Your task to perform on an android device: change alarm snooze length Image 0: 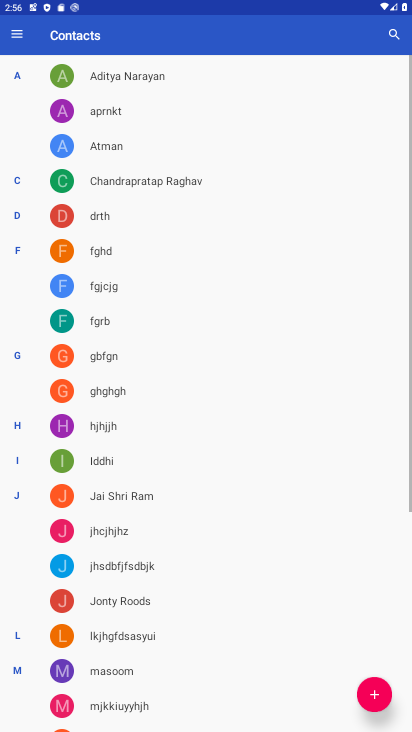
Step 0: drag from (203, 665) to (343, 554)
Your task to perform on an android device: change alarm snooze length Image 1: 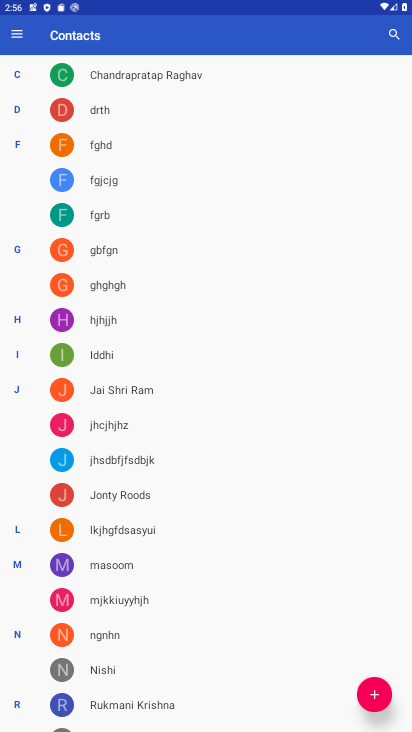
Step 1: press home button
Your task to perform on an android device: change alarm snooze length Image 2: 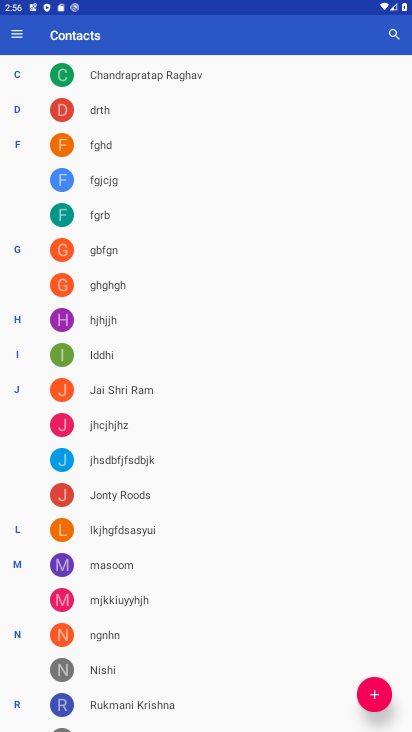
Step 2: drag from (343, 554) to (382, 550)
Your task to perform on an android device: change alarm snooze length Image 3: 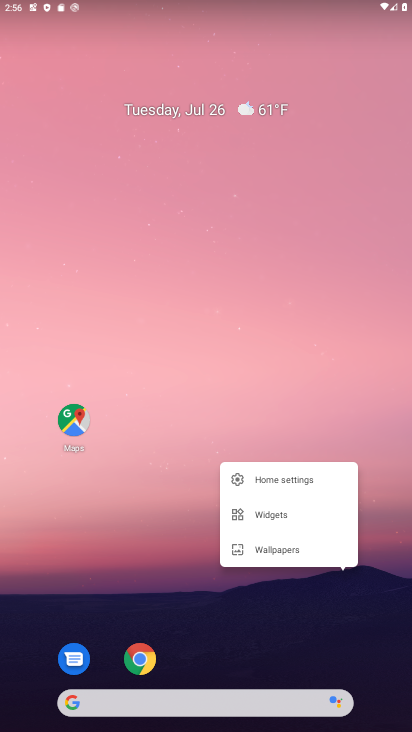
Step 3: drag from (187, 582) to (203, 350)
Your task to perform on an android device: change alarm snooze length Image 4: 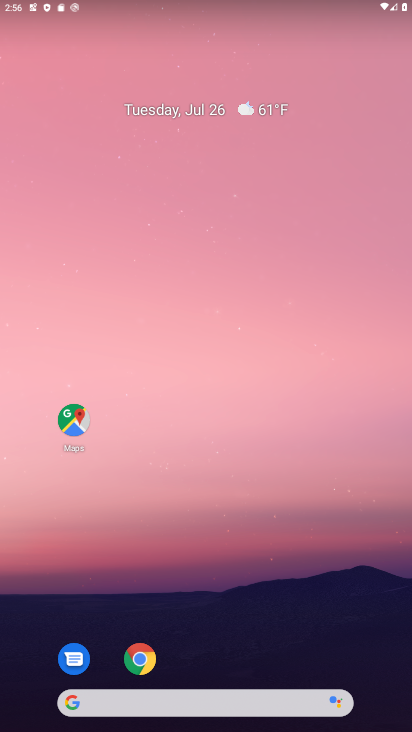
Step 4: drag from (189, 536) to (221, 76)
Your task to perform on an android device: change alarm snooze length Image 5: 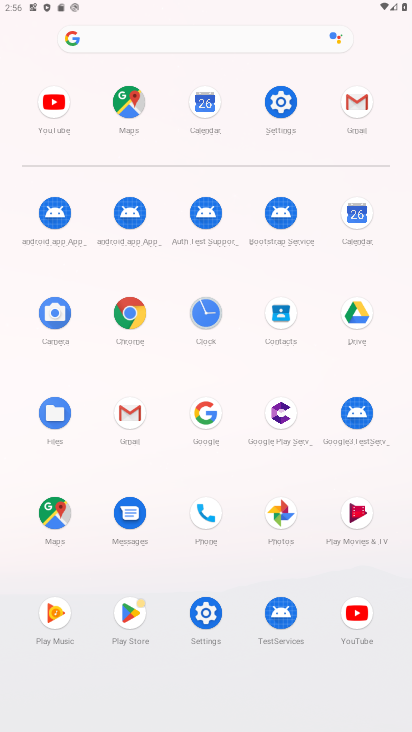
Step 5: click (210, 326)
Your task to perform on an android device: change alarm snooze length Image 6: 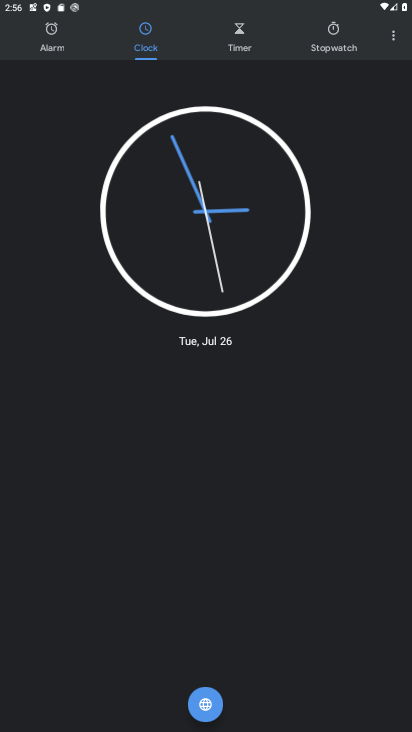
Step 6: click (395, 38)
Your task to perform on an android device: change alarm snooze length Image 7: 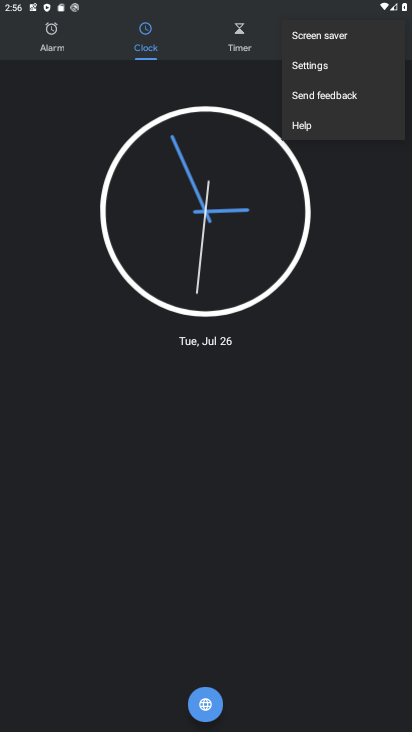
Step 7: click (304, 67)
Your task to perform on an android device: change alarm snooze length Image 8: 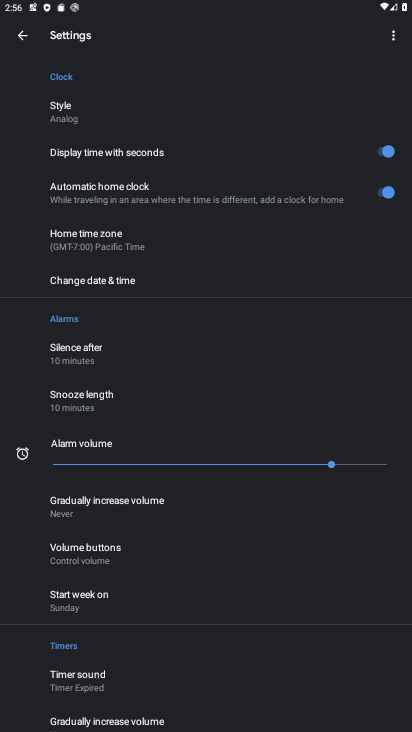
Step 8: click (111, 280)
Your task to perform on an android device: change alarm snooze length Image 9: 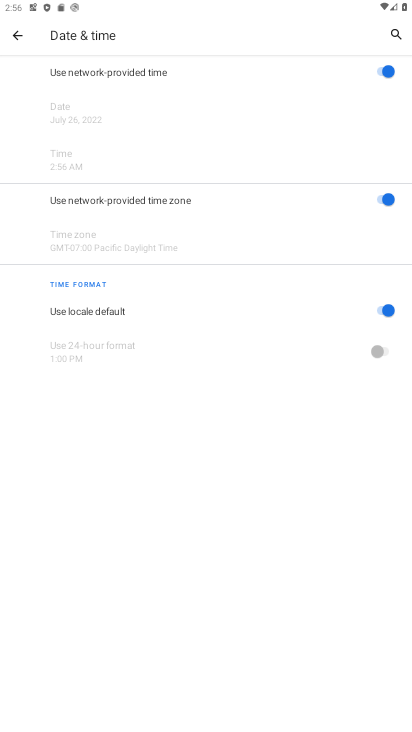
Step 9: click (14, 34)
Your task to perform on an android device: change alarm snooze length Image 10: 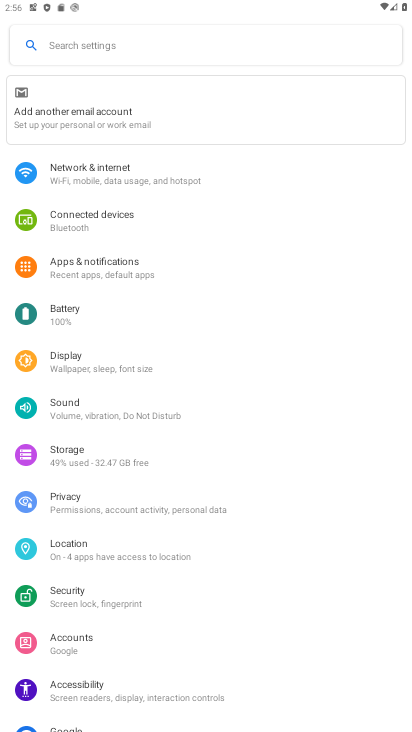
Step 10: press back button
Your task to perform on an android device: change alarm snooze length Image 11: 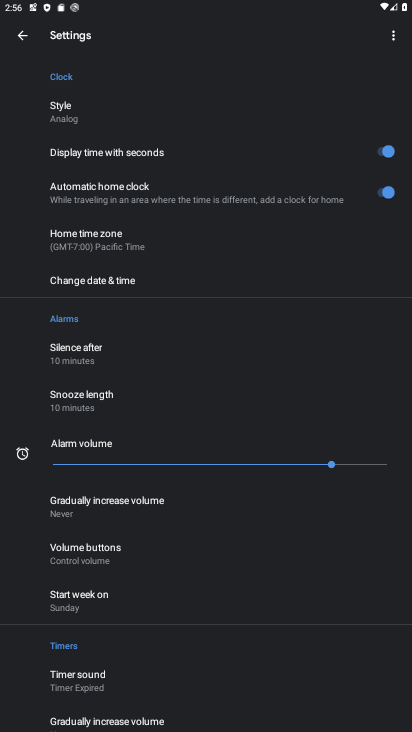
Step 11: click (71, 397)
Your task to perform on an android device: change alarm snooze length Image 12: 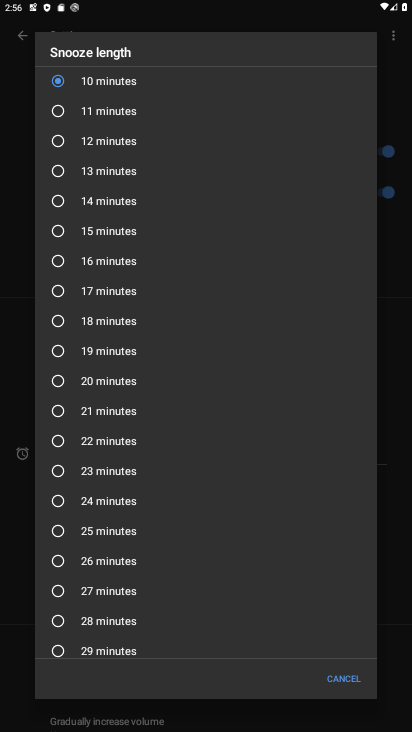
Step 12: click (45, 351)
Your task to perform on an android device: change alarm snooze length Image 13: 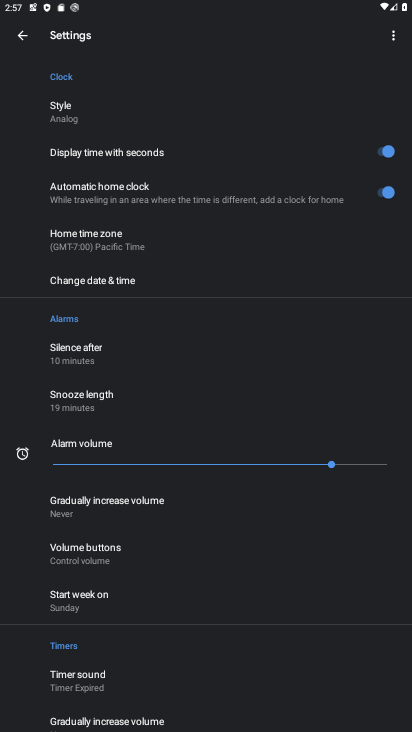
Step 13: task complete